Your task to perform on an android device: Show me the alarms in the clock app Image 0: 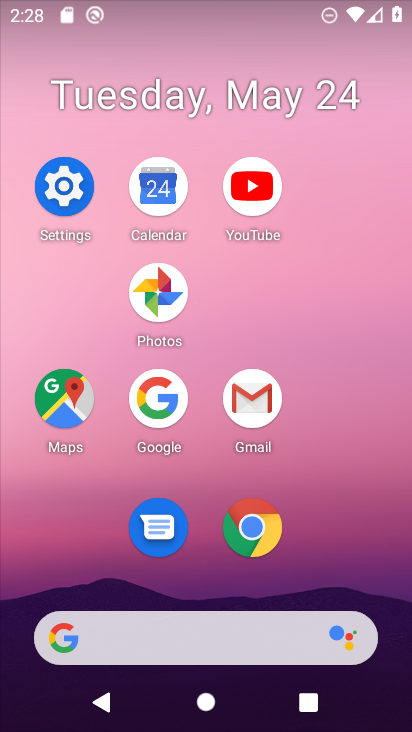
Step 0: drag from (350, 511) to (375, 108)
Your task to perform on an android device: Show me the alarms in the clock app Image 1: 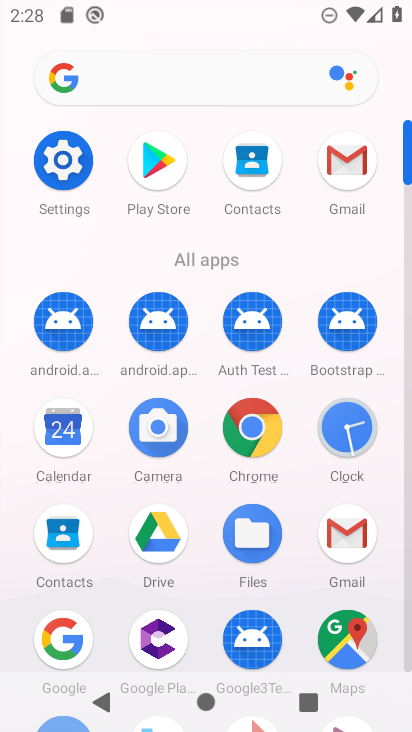
Step 1: drag from (184, 582) to (205, 314)
Your task to perform on an android device: Show me the alarms in the clock app Image 2: 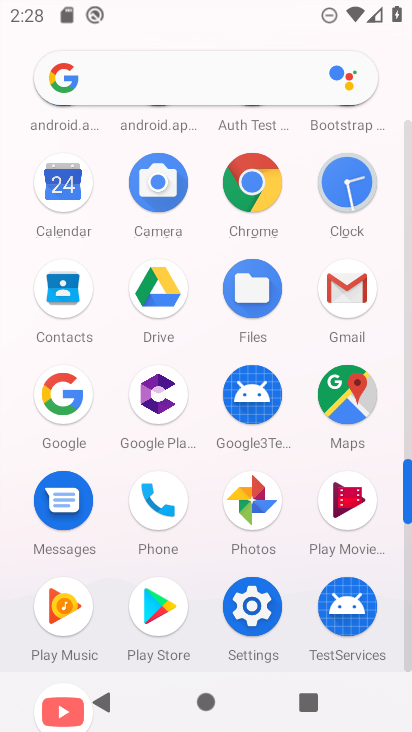
Step 2: drag from (345, 193) to (81, 308)
Your task to perform on an android device: Show me the alarms in the clock app Image 3: 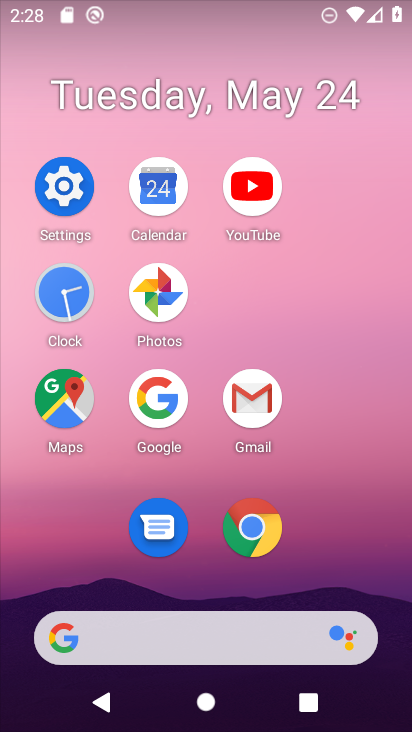
Step 3: click (66, 313)
Your task to perform on an android device: Show me the alarms in the clock app Image 4: 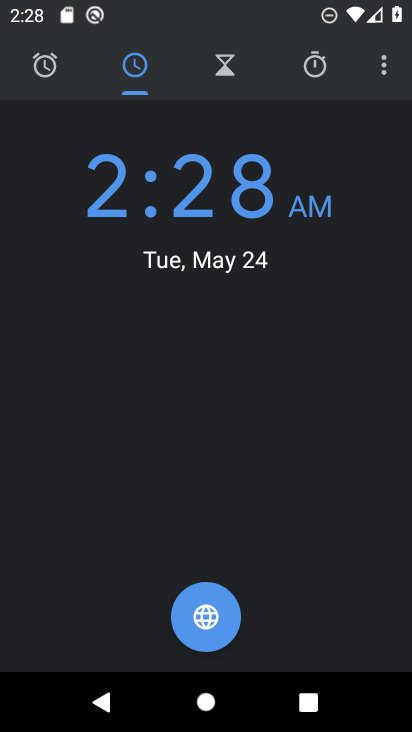
Step 4: click (47, 95)
Your task to perform on an android device: Show me the alarms in the clock app Image 5: 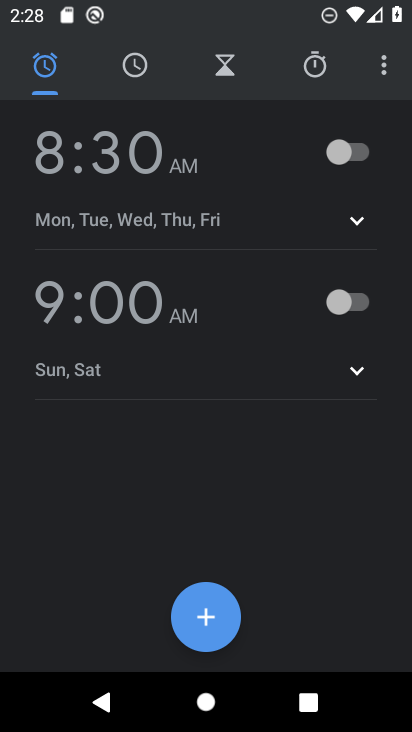
Step 5: task complete